Your task to perform on an android device: add a contact Image 0: 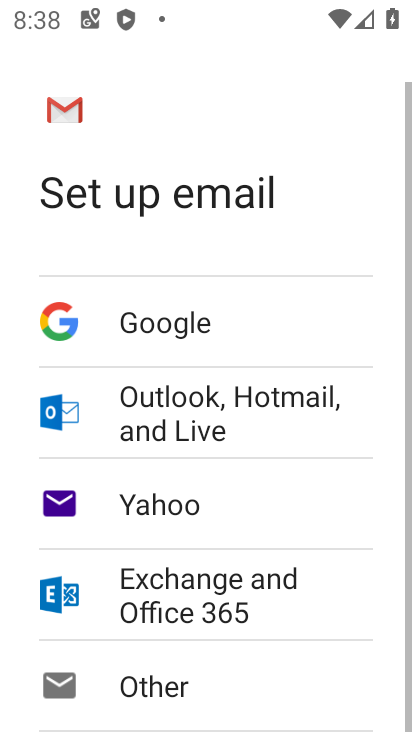
Step 0: press home button
Your task to perform on an android device: add a contact Image 1: 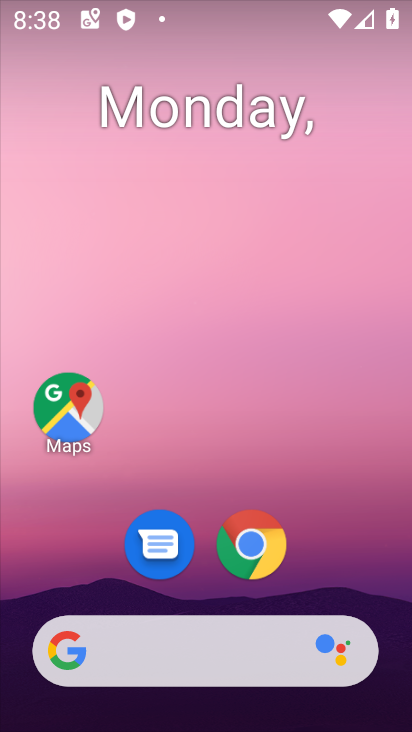
Step 1: drag from (345, 509) to (199, 105)
Your task to perform on an android device: add a contact Image 2: 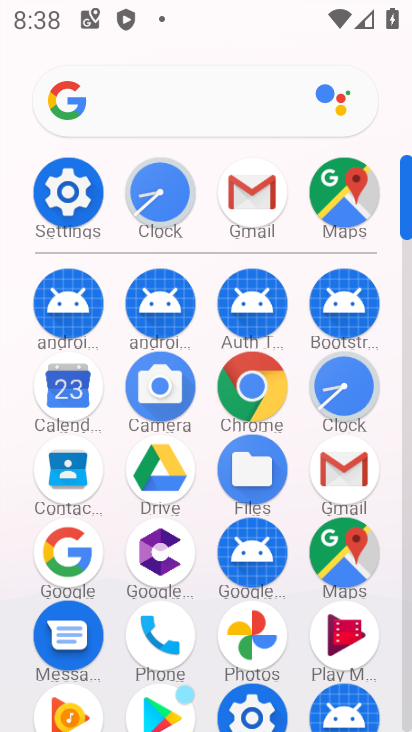
Step 2: click (77, 470)
Your task to perform on an android device: add a contact Image 3: 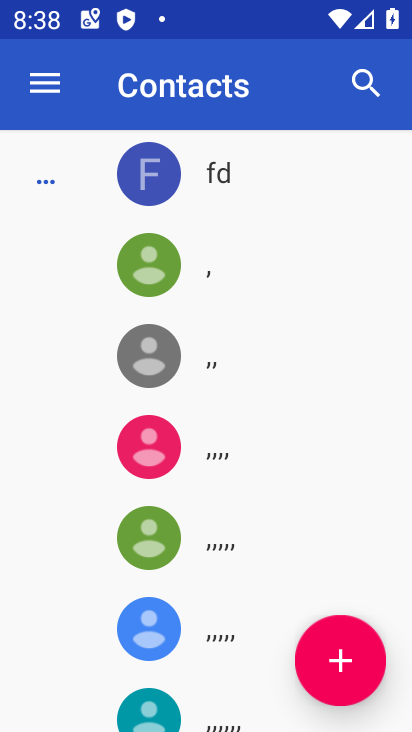
Step 3: click (345, 660)
Your task to perform on an android device: add a contact Image 4: 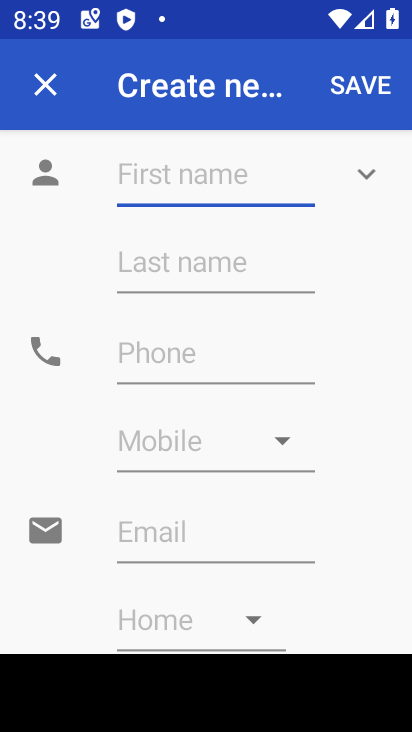
Step 4: type "hgfdsa"
Your task to perform on an android device: add a contact Image 5: 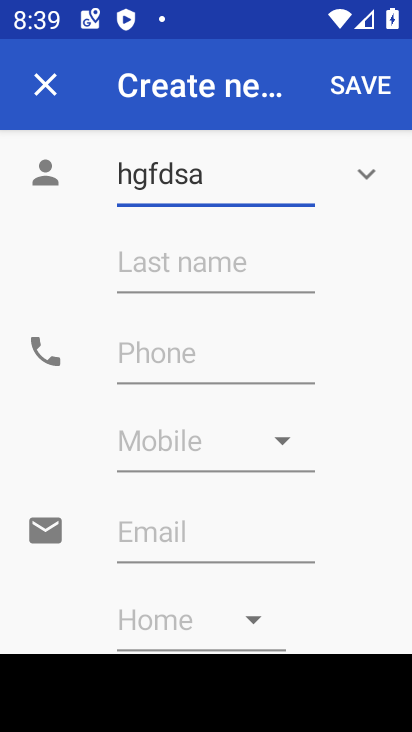
Step 5: click (155, 352)
Your task to perform on an android device: add a contact Image 6: 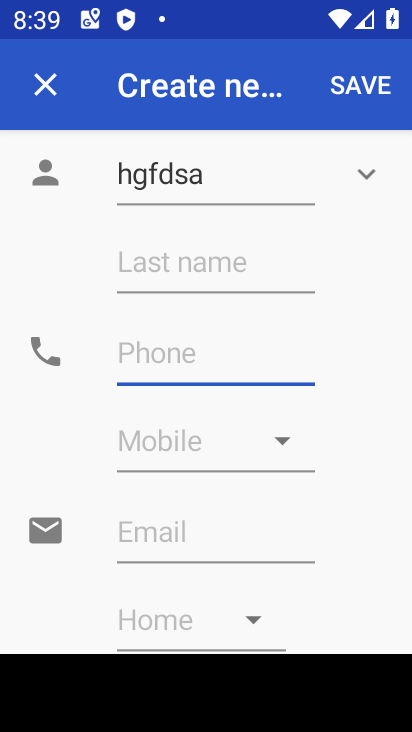
Step 6: type "2222"
Your task to perform on an android device: add a contact Image 7: 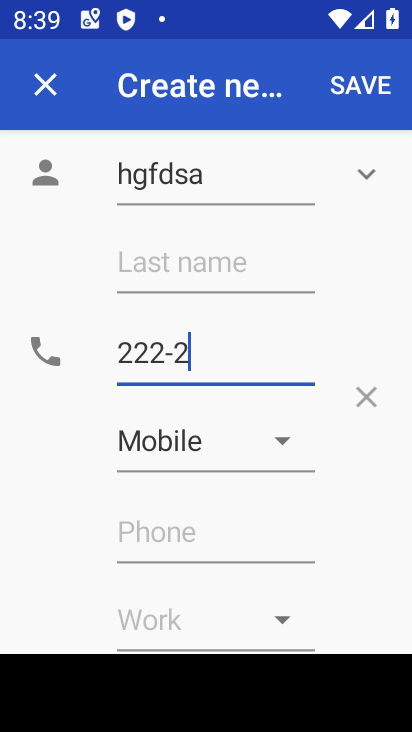
Step 7: task complete